Your task to perform on an android device: What's the weather going to be this weekend? Image 0: 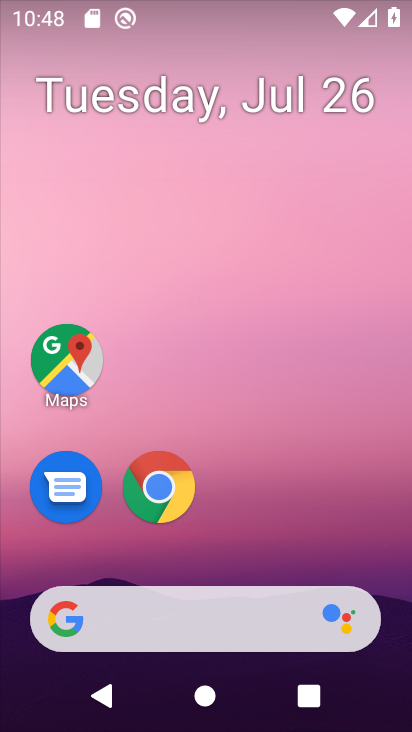
Step 0: click (176, 610)
Your task to perform on an android device: What's the weather going to be this weekend? Image 1: 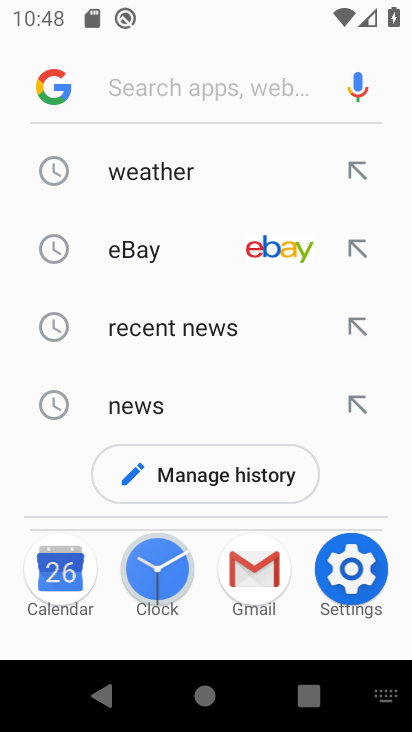
Step 1: click (141, 180)
Your task to perform on an android device: What's the weather going to be this weekend? Image 2: 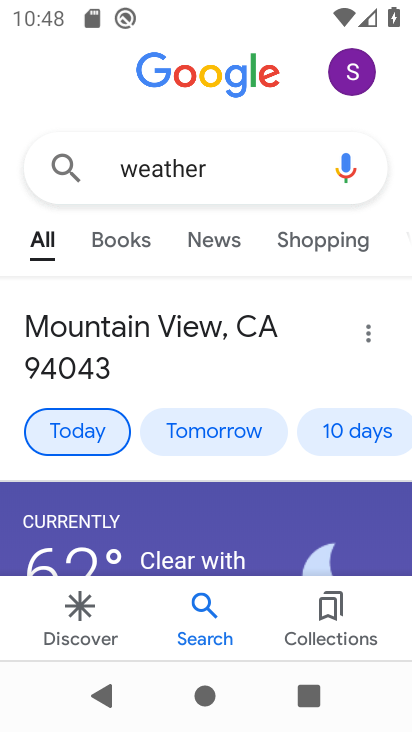
Step 2: click (348, 423)
Your task to perform on an android device: What's the weather going to be this weekend? Image 3: 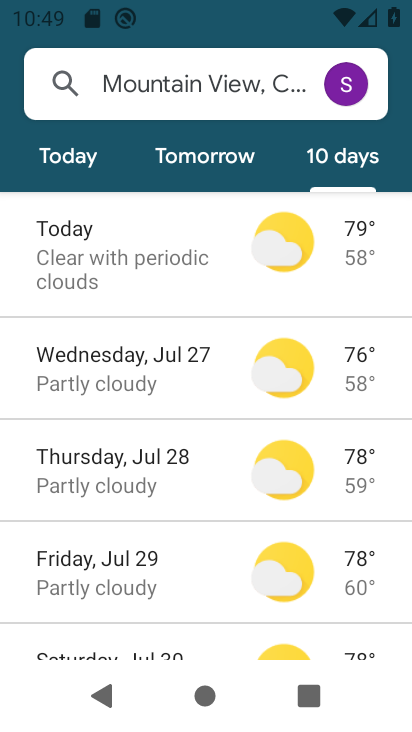
Step 3: task complete